Your task to perform on an android device: Go to internet settings Image 0: 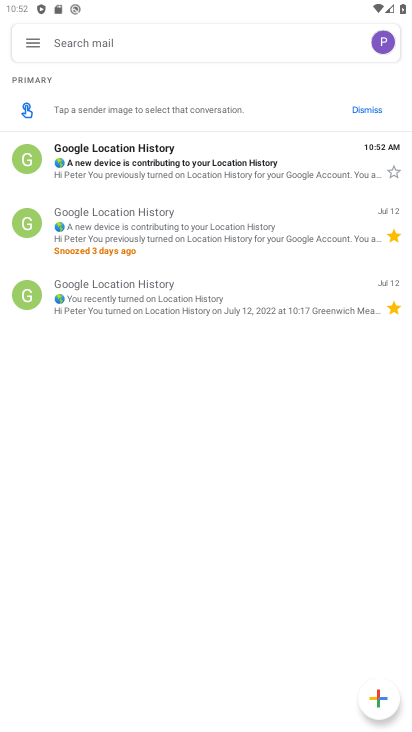
Step 0: click (257, 621)
Your task to perform on an android device: Go to internet settings Image 1: 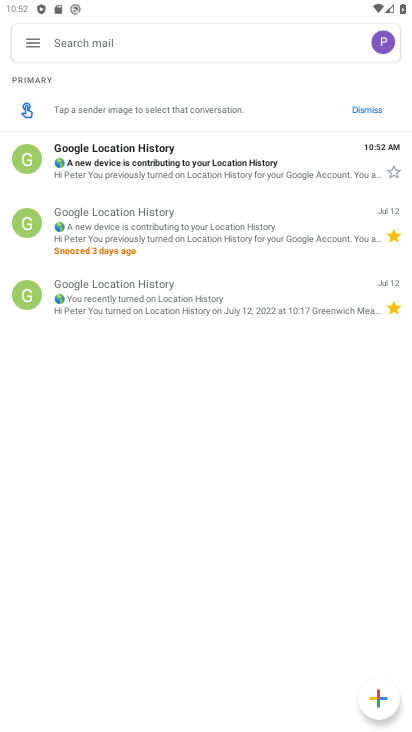
Step 1: press home button
Your task to perform on an android device: Go to internet settings Image 2: 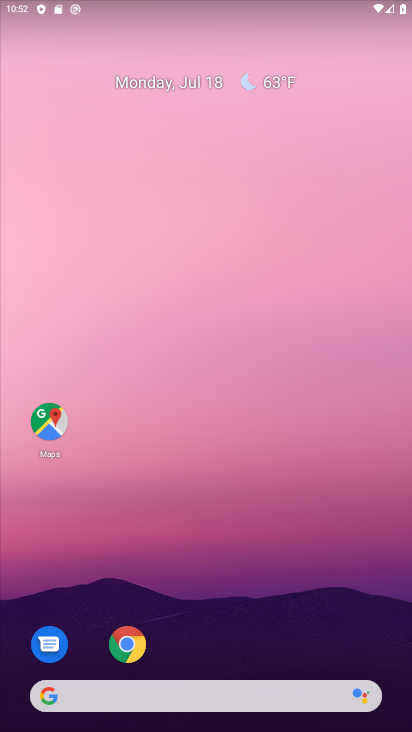
Step 2: drag from (272, 645) to (274, 48)
Your task to perform on an android device: Go to internet settings Image 3: 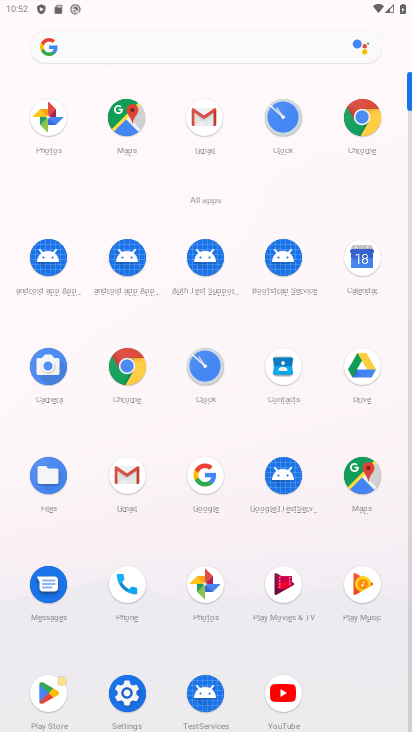
Step 3: click (129, 682)
Your task to perform on an android device: Go to internet settings Image 4: 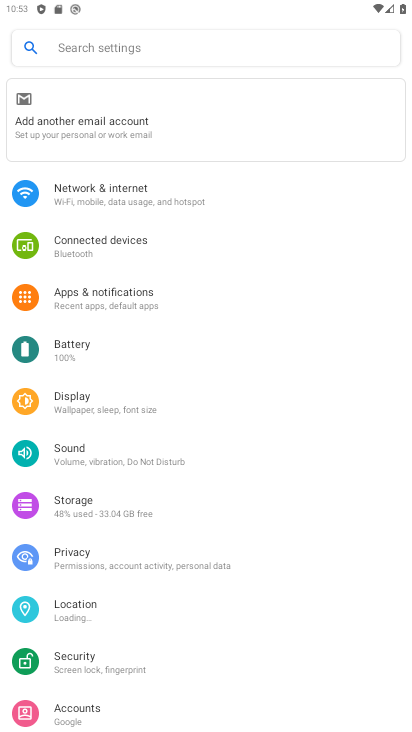
Step 4: click (122, 184)
Your task to perform on an android device: Go to internet settings Image 5: 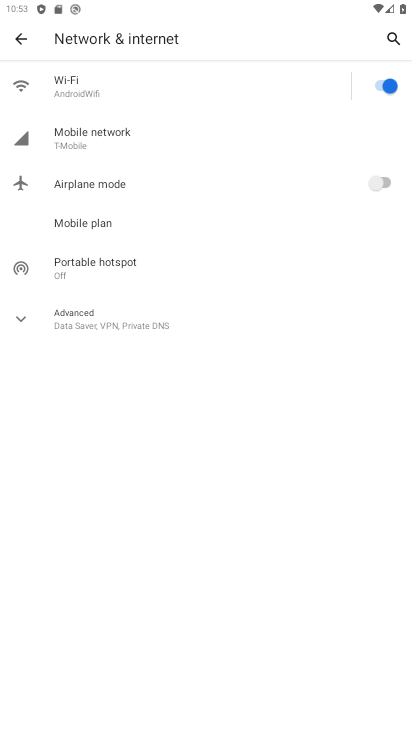
Step 5: click (134, 136)
Your task to perform on an android device: Go to internet settings Image 6: 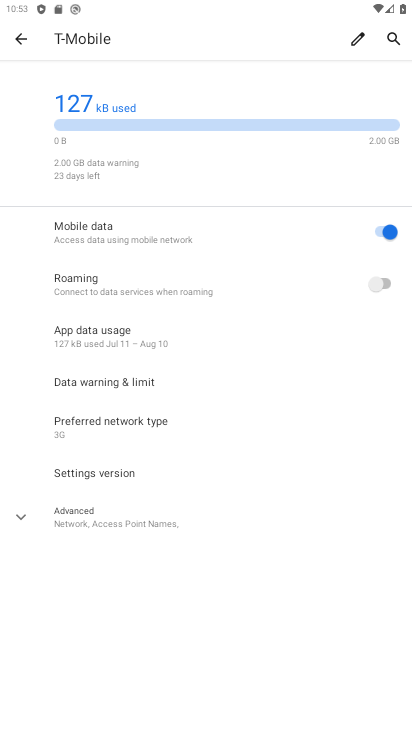
Step 6: task complete